Your task to perform on an android device: open a bookmark in the chrome app Image 0: 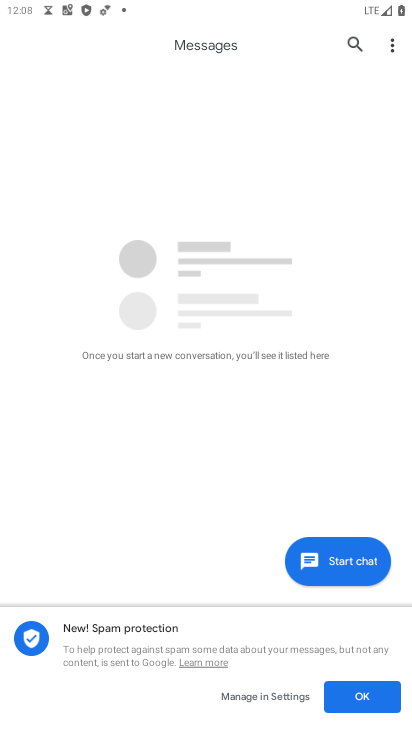
Step 0: press back button
Your task to perform on an android device: open a bookmark in the chrome app Image 1: 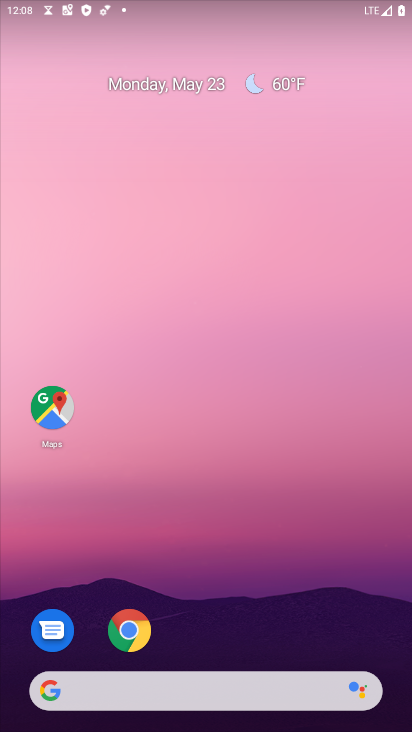
Step 1: click (131, 630)
Your task to perform on an android device: open a bookmark in the chrome app Image 2: 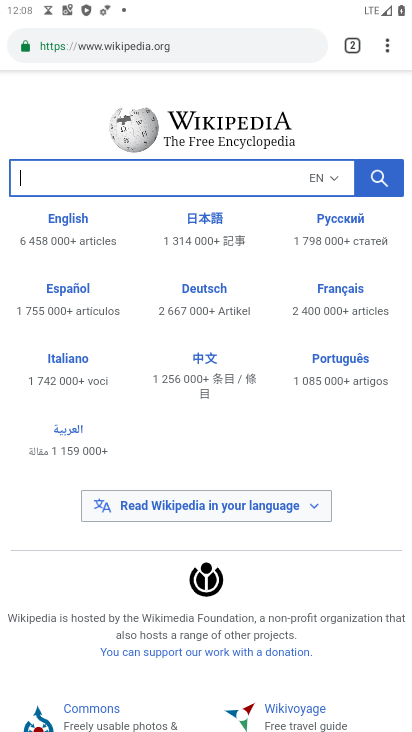
Step 2: click (388, 44)
Your task to perform on an android device: open a bookmark in the chrome app Image 3: 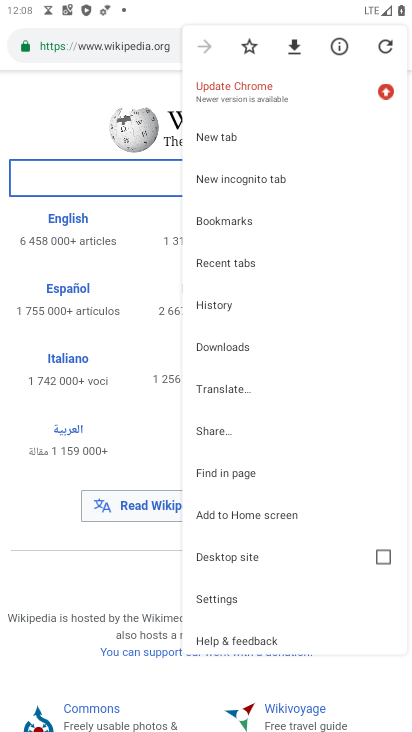
Step 3: click (238, 220)
Your task to perform on an android device: open a bookmark in the chrome app Image 4: 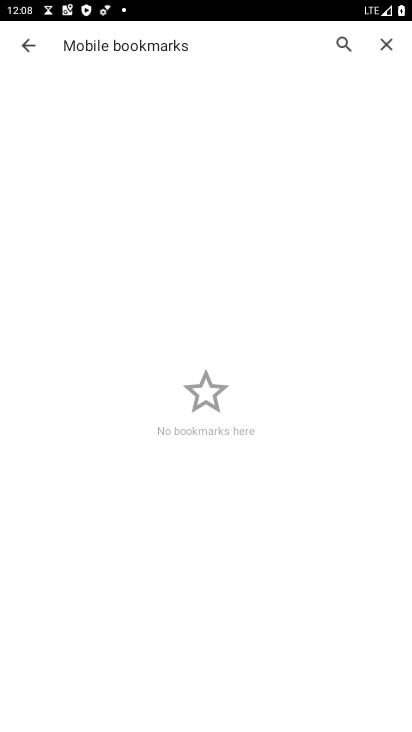
Step 4: task complete